Your task to perform on an android device: What's the weather going to be tomorrow? Image 0: 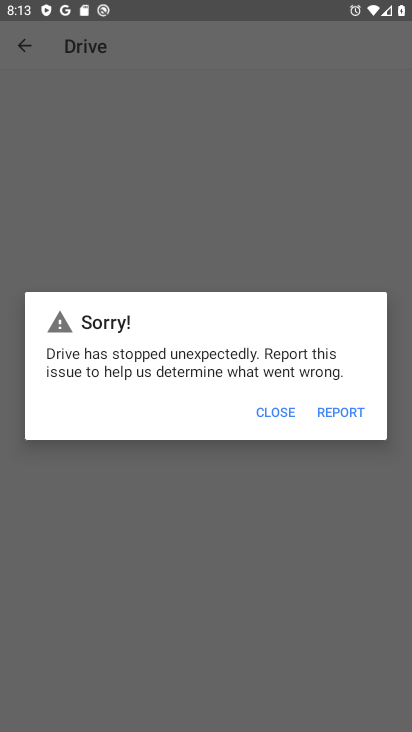
Step 0: press home button
Your task to perform on an android device: What's the weather going to be tomorrow? Image 1: 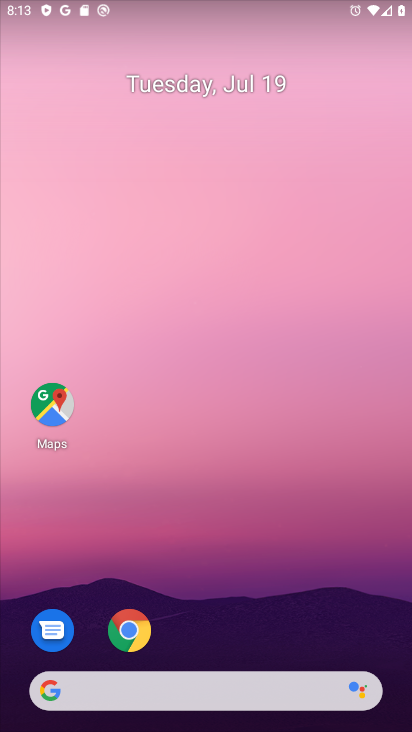
Step 1: click (225, 699)
Your task to perform on an android device: What's the weather going to be tomorrow? Image 2: 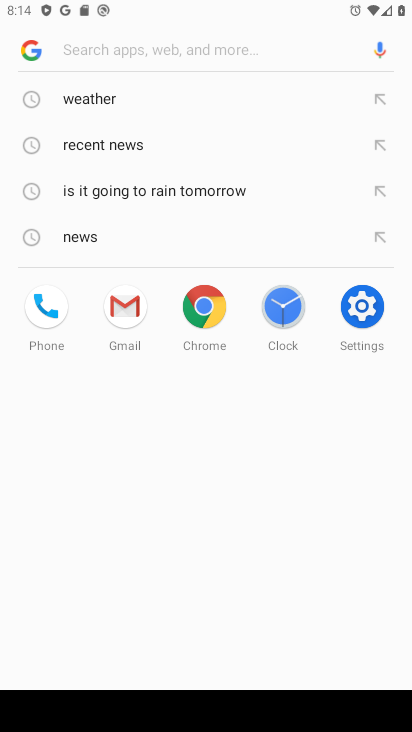
Step 2: type "what's the weather going to be tomorrow"
Your task to perform on an android device: What's the weather going to be tomorrow? Image 3: 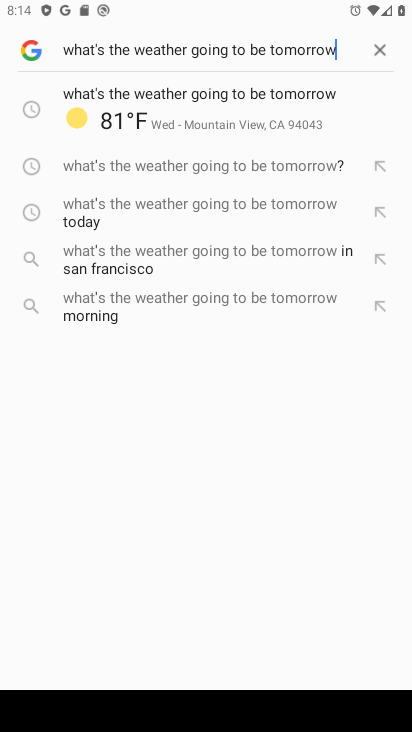
Step 3: click (133, 110)
Your task to perform on an android device: What's the weather going to be tomorrow? Image 4: 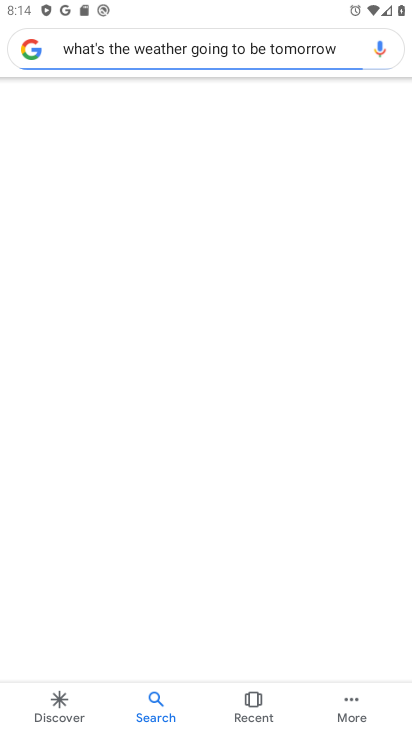
Step 4: click (131, 112)
Your task to perform on an android device: What's the weather going to be tomorrow? Image 5: 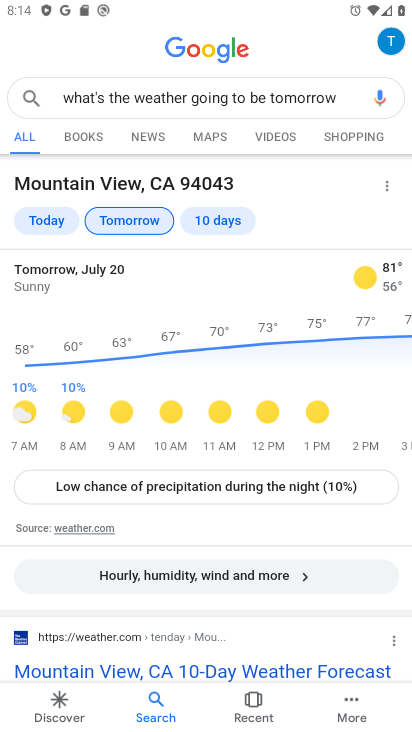
Step 5: task complete